Your task to perform on an android device: Clear all items from cart on newegg. Search for "apple airpods pro" on newegg, select the first entry, and add it to the cart. Image 0: 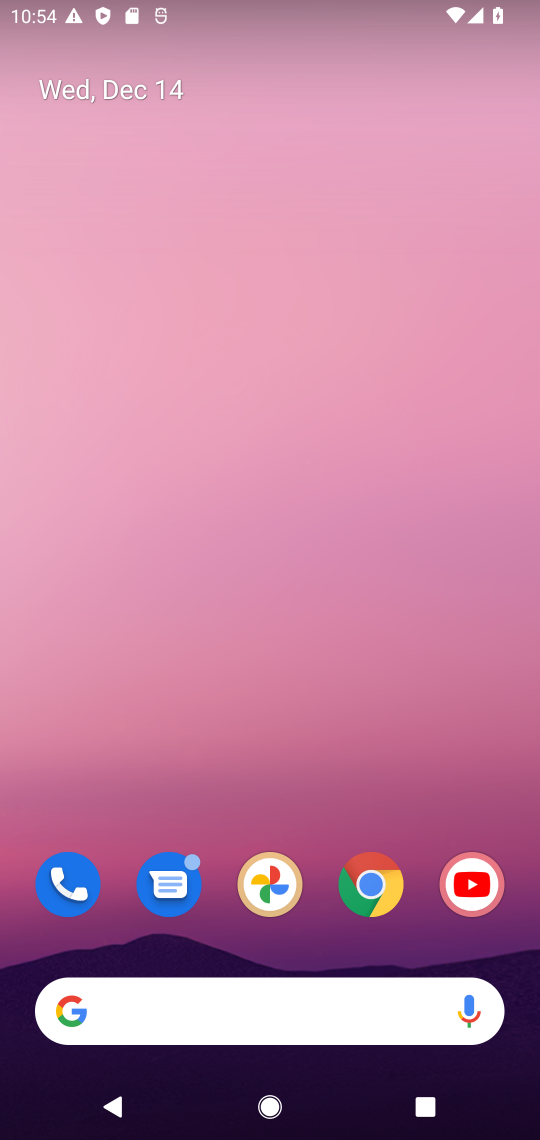
Step 0: click (375, 900)
Your task to perform on an android device: Clear all items from cart on newegg. Search for "apple airpods pro" on newegg, select the first entry, and add it to the cart. Image 1: 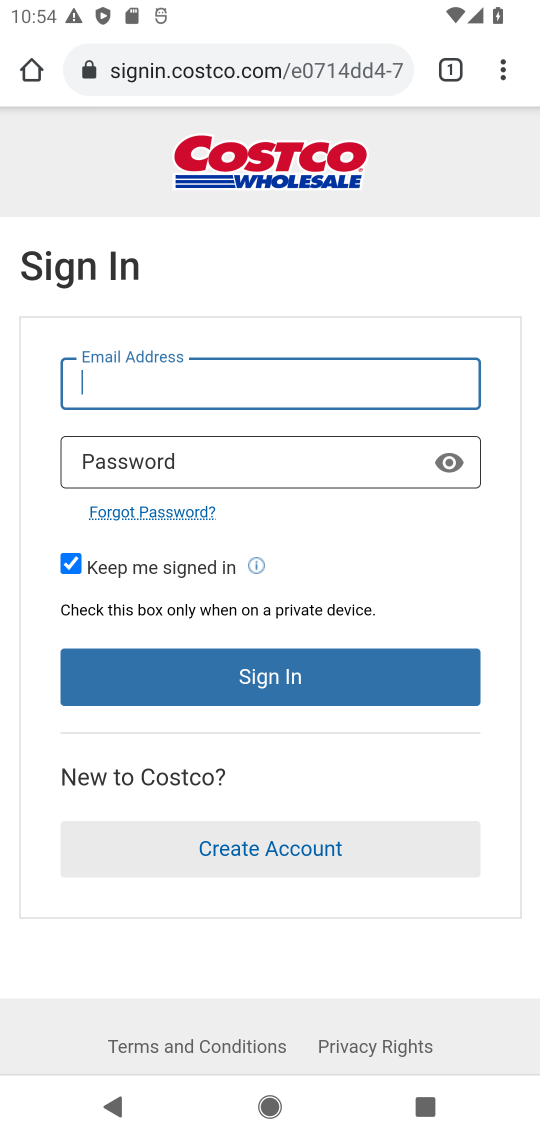
Step 1: click (253, 157)
Your task to perform on an android device: Clear all items from cart on newegg. Search for "apple airpods pro" on newegg, select the first entry, and add it to the cart. Image 2: 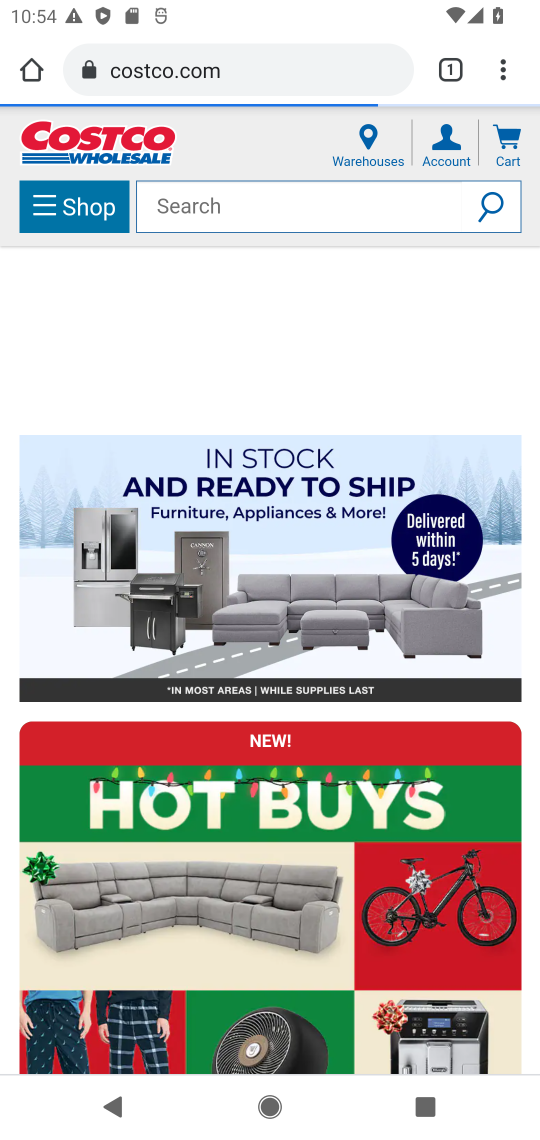
Step 2: click (249, 199)
Your task to perform on an android device: Clear all items from cart on newegg. Search for "apple airpods pro" on newegg, select the first entry, and add it to the cart. Image 3: 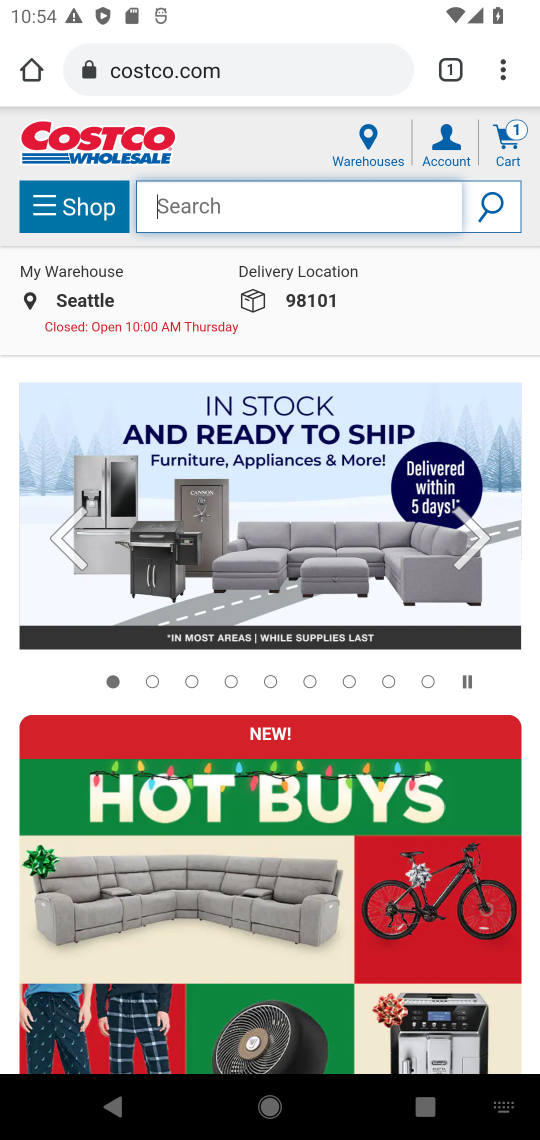
Step 3: type "apple airpods pro"
Your task to perform on an android device: Clear all items from cart on newegg. Search for "apple airpods pro" on newegg, select the first entry, and add it to the cart. Image 4: 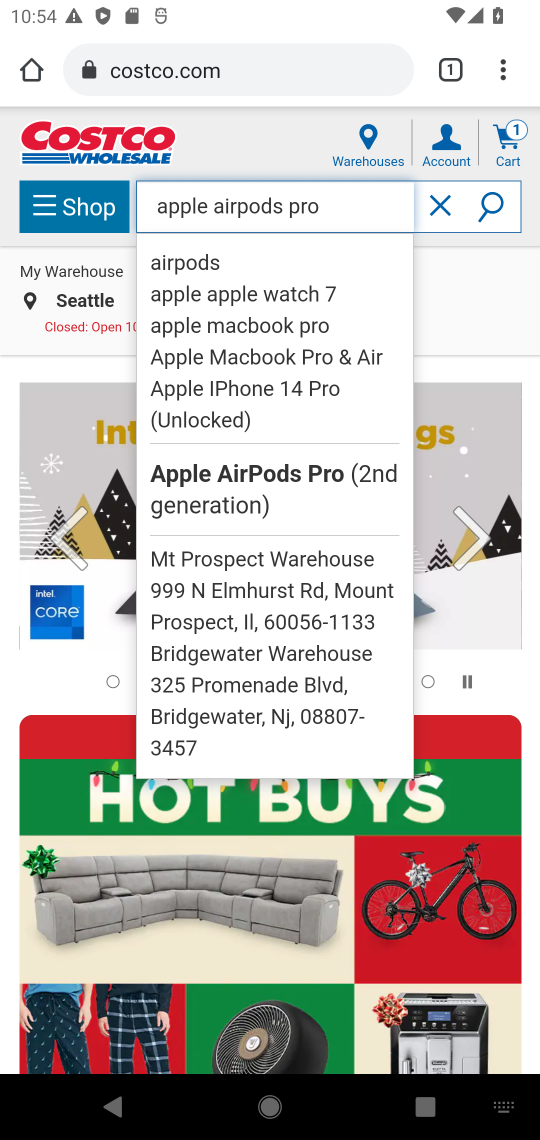
Step 4: press enter
Your task to perform on an android device: Clear all items from cart on newegg. Search for "apple airpods pro" on newegg, select the first entry, and add it to the cart. Image 5: 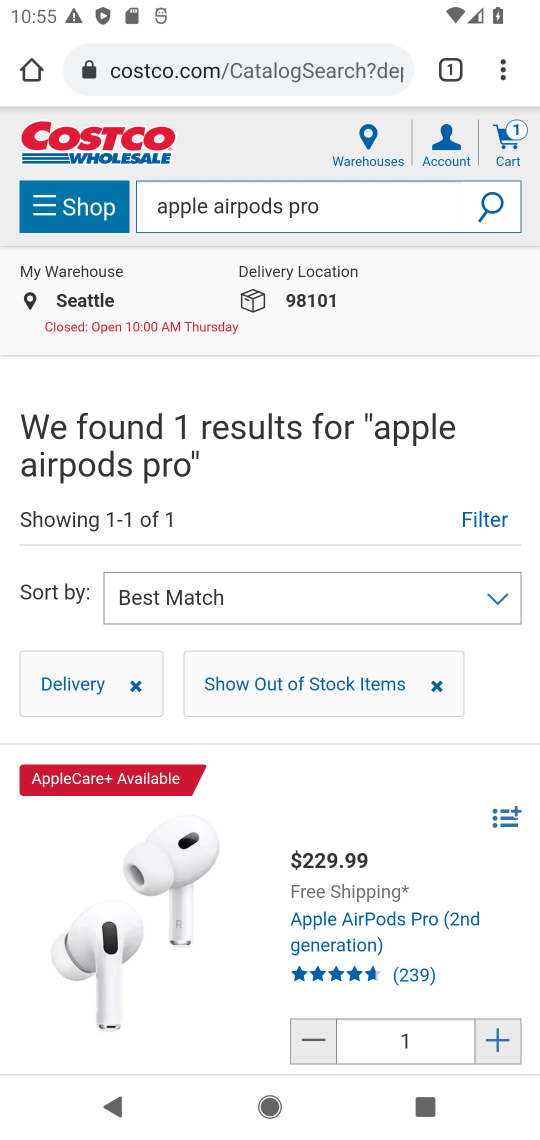
Step 5: drag from (335, 821) to (357, 581)
Your task to perform on an android device: Clear all items from cart on newegg. Search for "apple airpods pro" on newegg, select the first entry, and add it to the cart. Image 6: 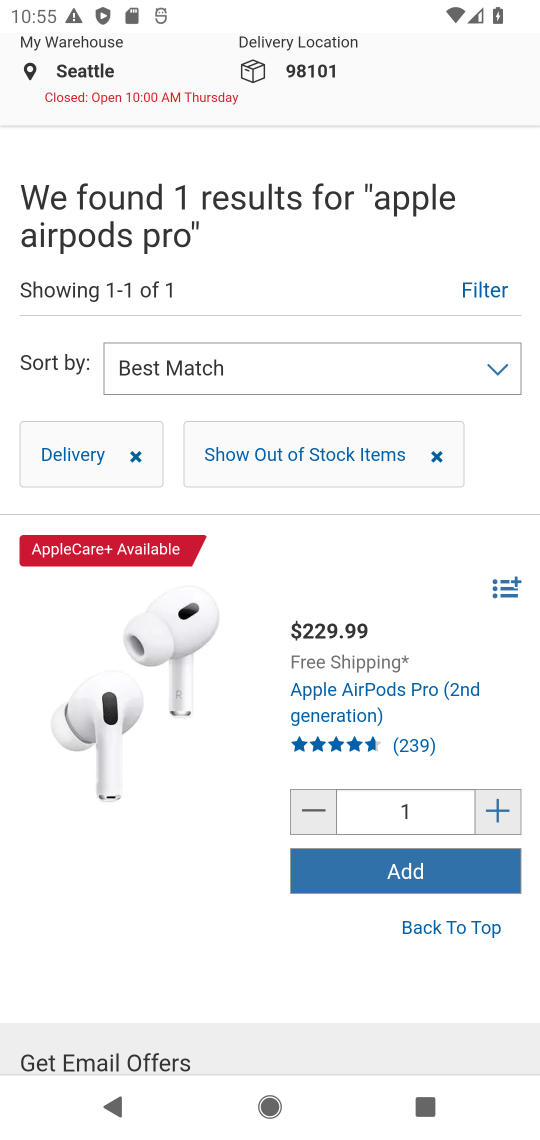
Step 6: click (427, 884)
Your task to perform on an android device: Clear all items from cart on newegg. Search for "apple airpods pro" on newegg, select the first entry, and add it to the cart. Image 7: 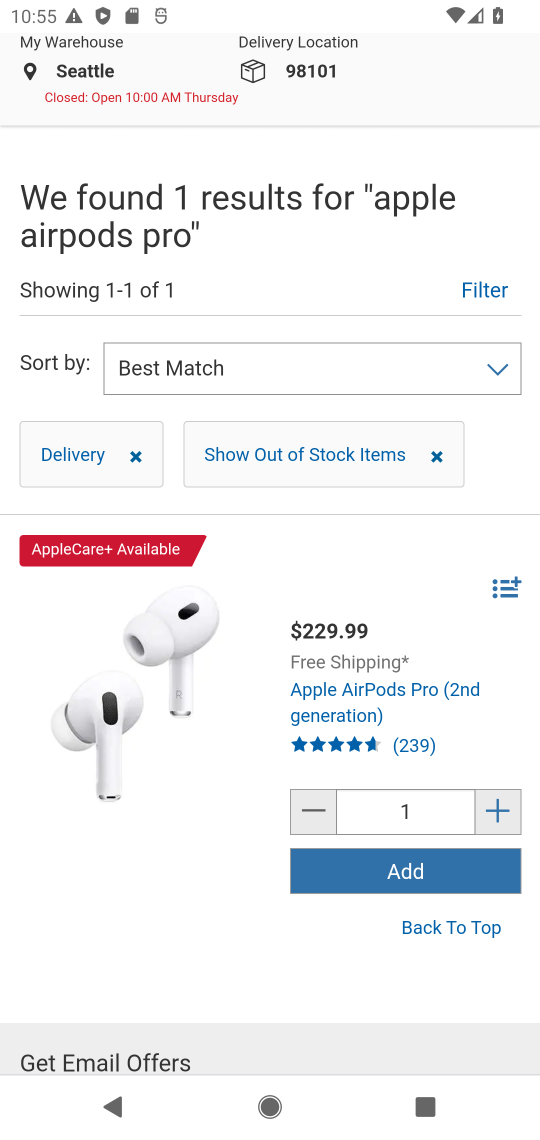
Step 7: click (427, 884)
Your task to perform on an android device: Clear all items from cart on newegg. Search for "apple airpods pro" on newegg, select the first entry, and add it to the cart. Image 8: 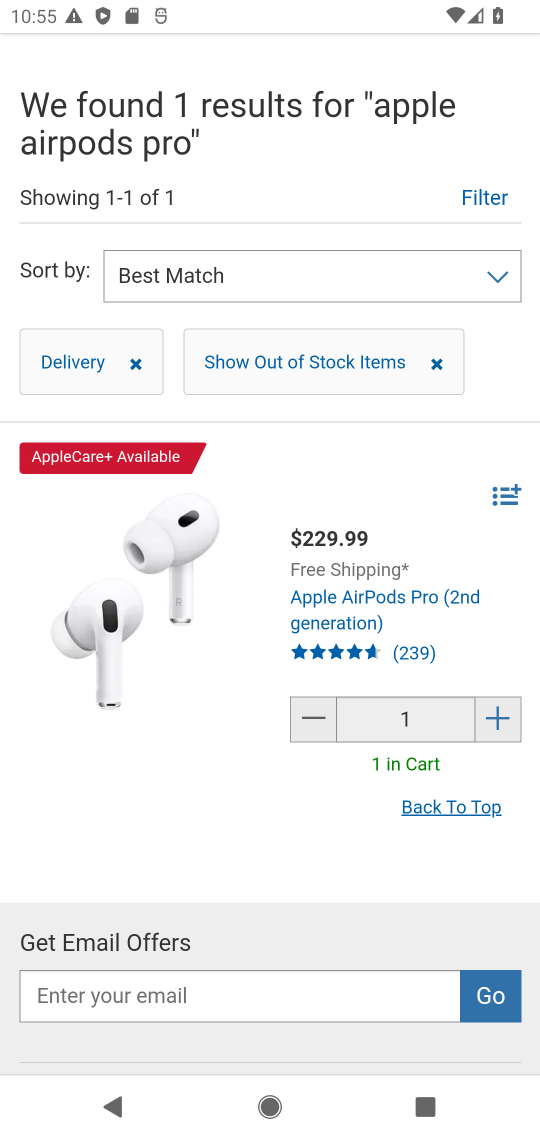
Step 8: drag from (474, 397) to (488, 908)
Your task to perform on an android device: Clear all items from cart on newegg. Search for "apple airpods pro" on newegg, select the first entry, and add it to the cart. Image 9: 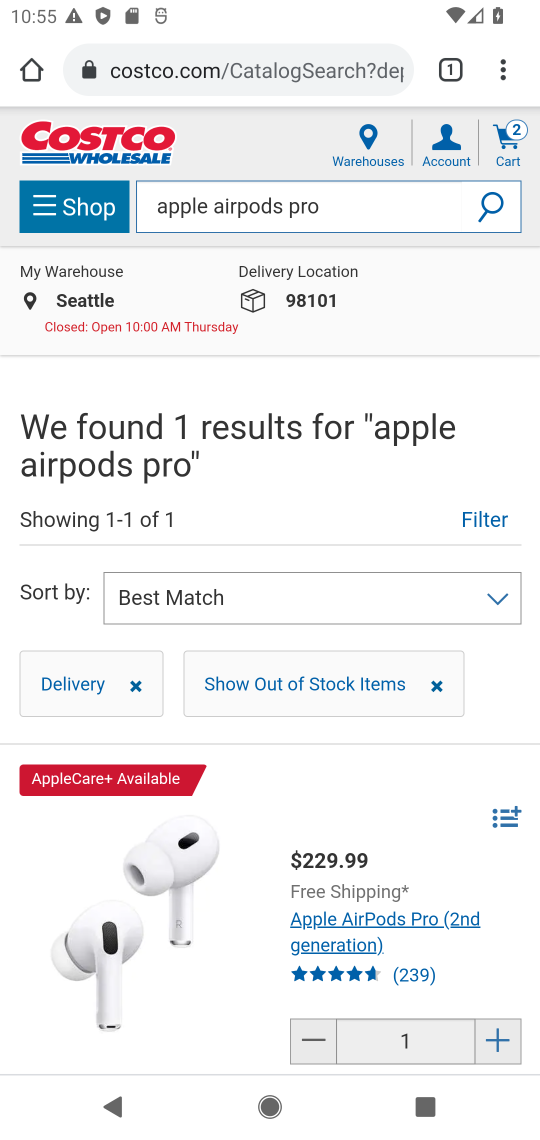
Step 9: click (506, 150)
Your task to perform on an android device: Clear all items from cart on newegg. Search for "apple airpods pro" on newegg, select the first entry, and add it to the cart. Image 10: 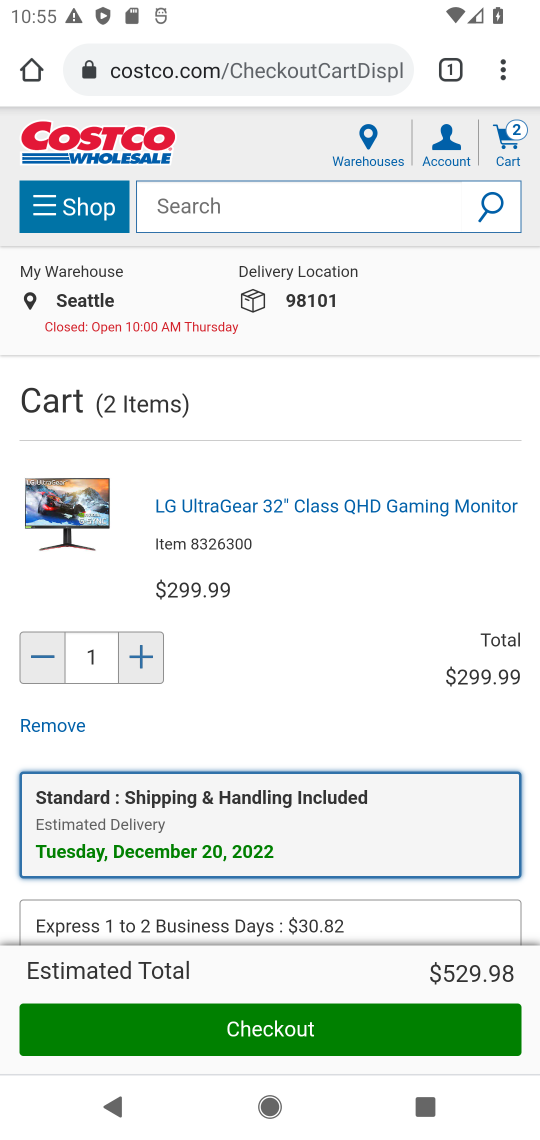
Step 10: task complete